Your task to perform on an android device: Open internet settings Image 0: 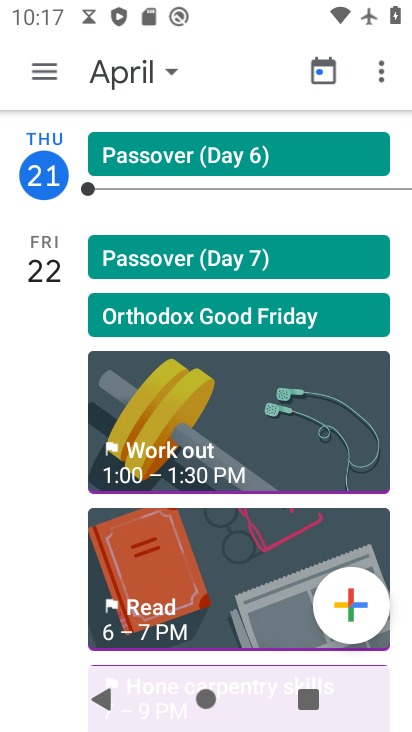
Step 0: press home button
Your task to perform on an android device: Open internet settings Image 1: 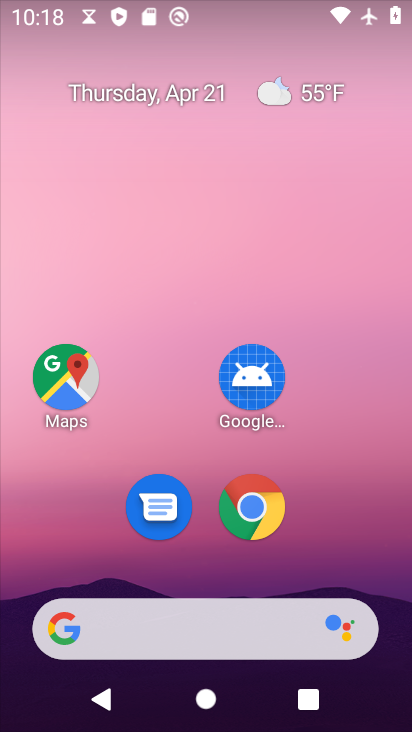
Step 1: drag from (217, 664) to (216, 268)
Your task to perform on an android device: Open internet settings Image 2: 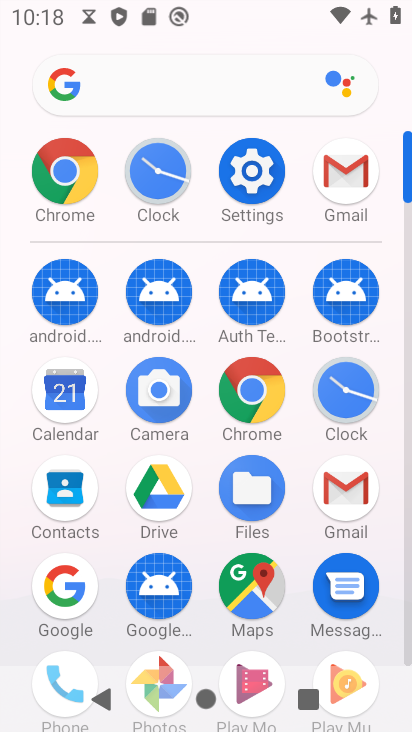
Step 2: click (245, 177)
Your task to perform on an android device: Open internet settings Image 3: 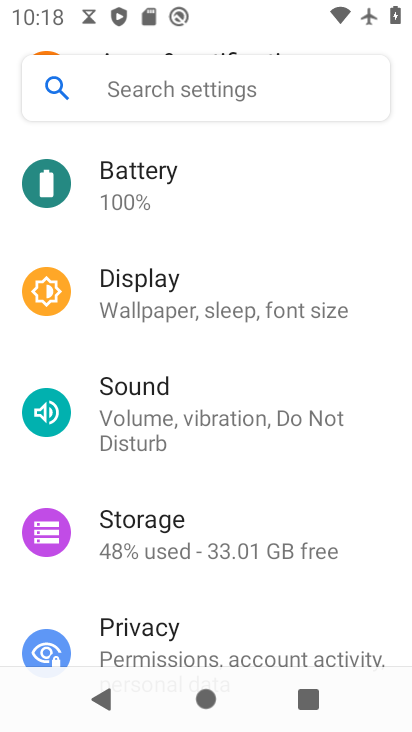
Step 3: drag from (184, 239) to (171, 616)
Your task to perform on an android device: Open internet settings Image 4: 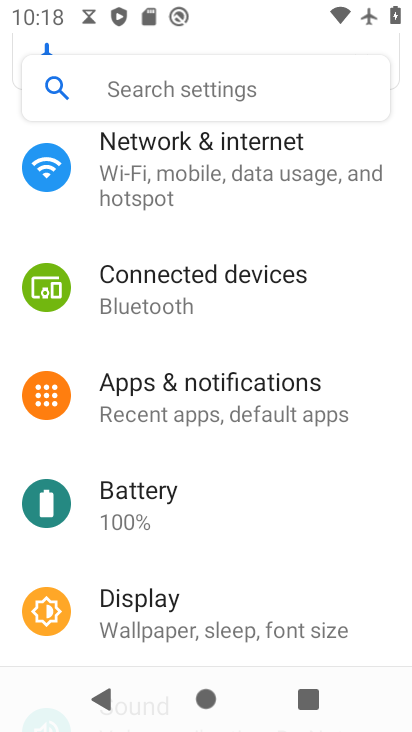
Step 4: click (186, 170)
Your task to perform on an android device: Open internet settings Image 5: 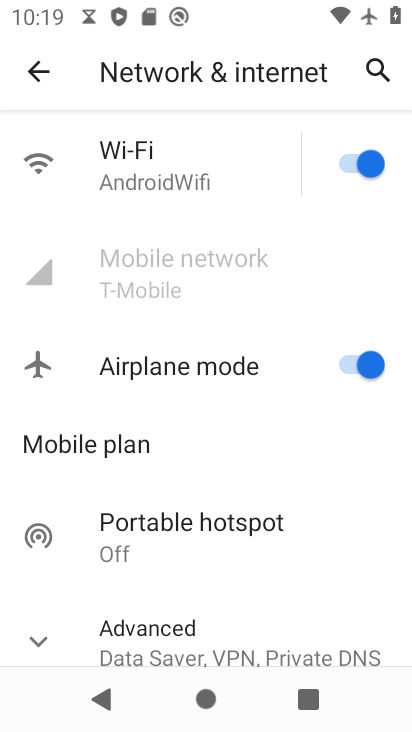
Step 5: task complete